Your task to perform on an android device: turn on location history Image 0: 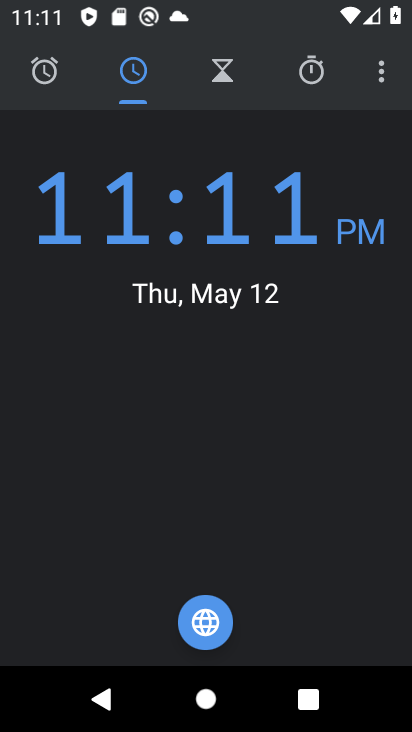
Step 0: press home button
Your task to perform on an android device: turn on location history Image 1: 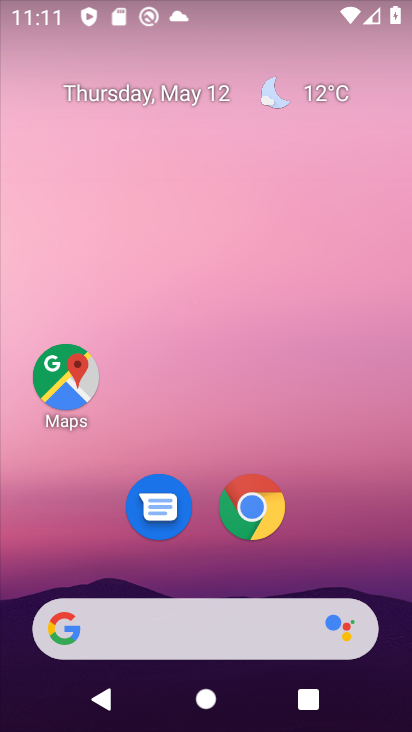
Step 1: drag from (201, 571) to (321, 1)
Your task to perform on an android device: turn on location history Image 2: 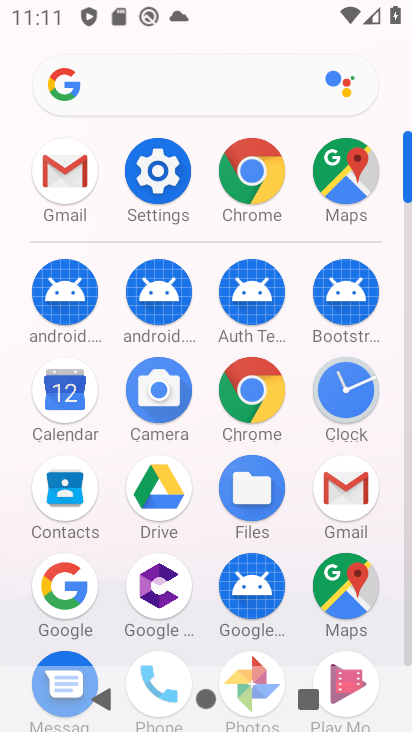
Step 2: click (157, 182)
Your task to perform on an android device: turn on location history Image 3: 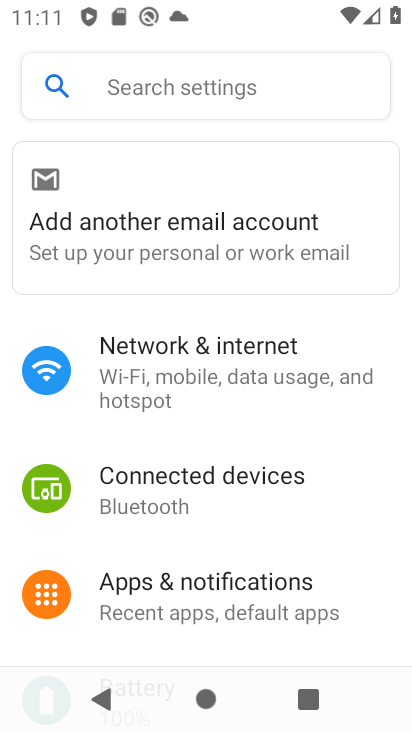
Step 3: drag from (223, 570) to (277, 229)
Your task to perform on an android device: turn on location history Image 4: 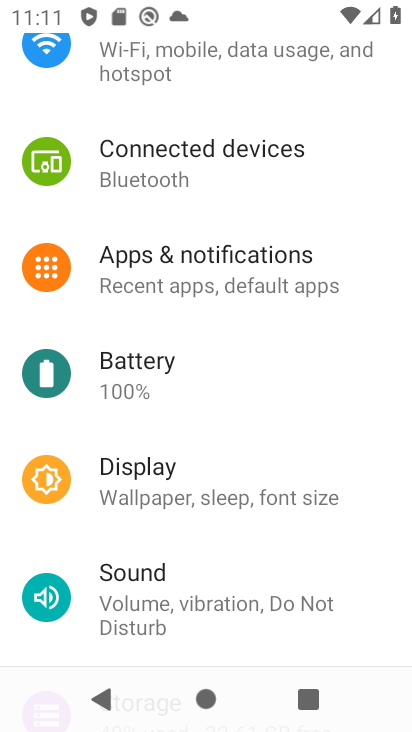
Step 4: drag from (157, 556) to (197, 306)
Your task to perform on an android device: turn on location history Image 5: 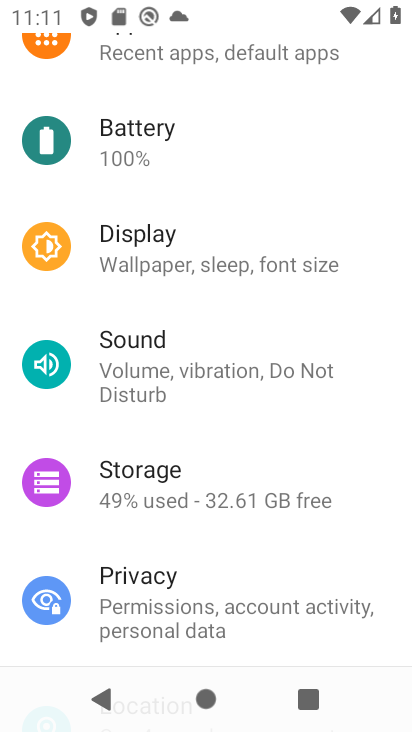
Step 5: drag from (175, 513) to (244, 194)
Your task to perform on an android device: turn on location history Image 6: 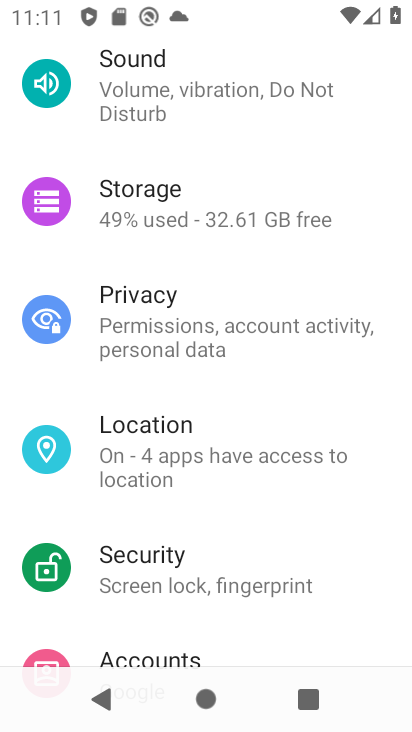
Step 6: click (168, 474)
Your task to perform on an android device: turn on location history Image 7: 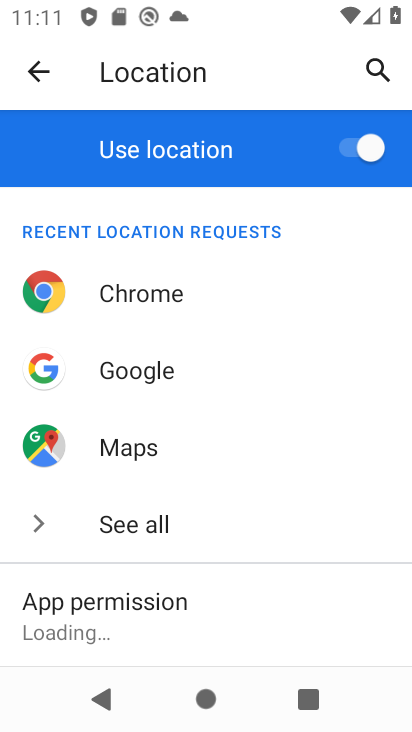
Step 7: drag from (148, 536) to (218, 242)
Your task to perform on an android device: turn on location history Image 8: 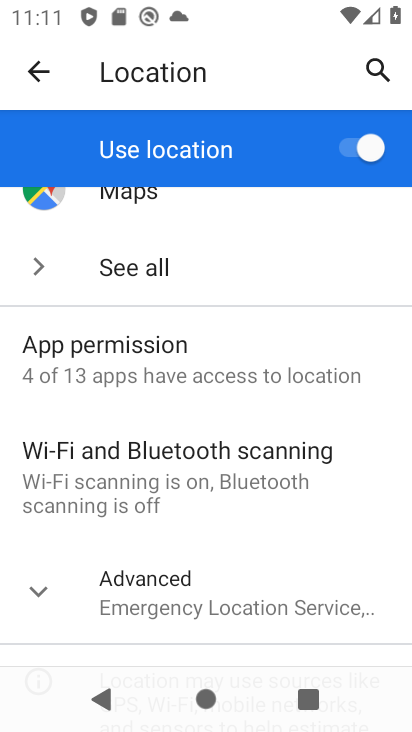
Step 8: drag from (143, 566) to (184, 406)
Your task to perform on an android device: turn on location history Image 9: 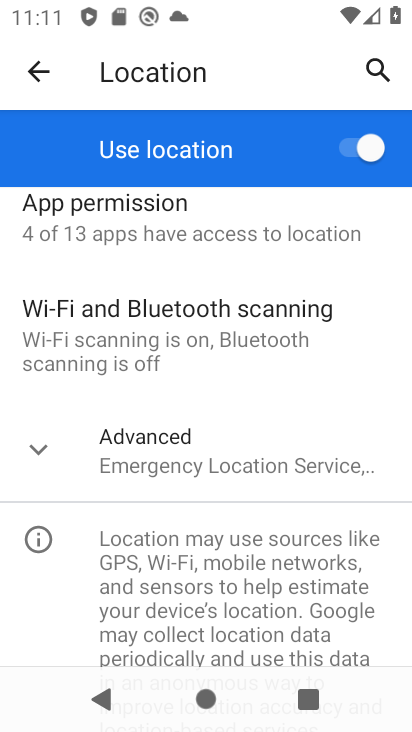
Step 9: click (105, 458)
Your task to perform on an android device: turn on location history Image 10: 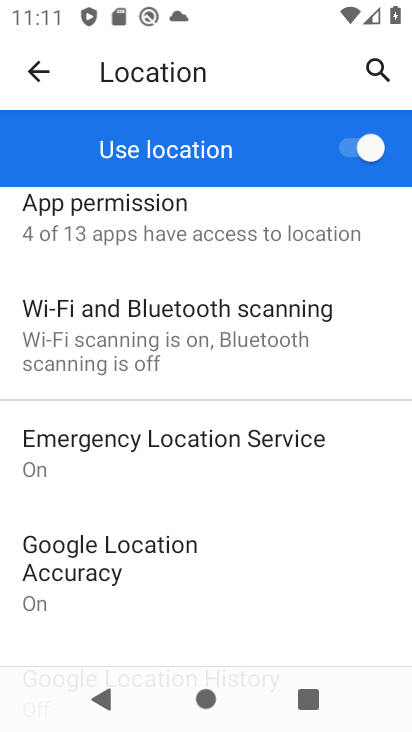
Step 10: drag from (102, 566) to (163, 312)
Your task to perform on an android device: turn on location history Image 11: 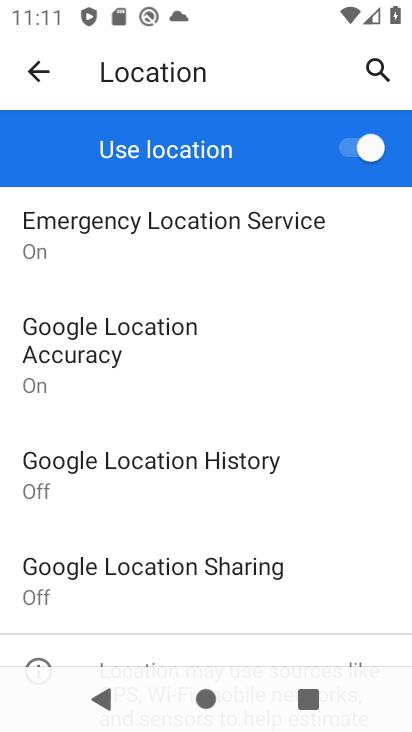
Step 11: click (113, 472)
Your task to perform on an android device: turn on location history Image 12: 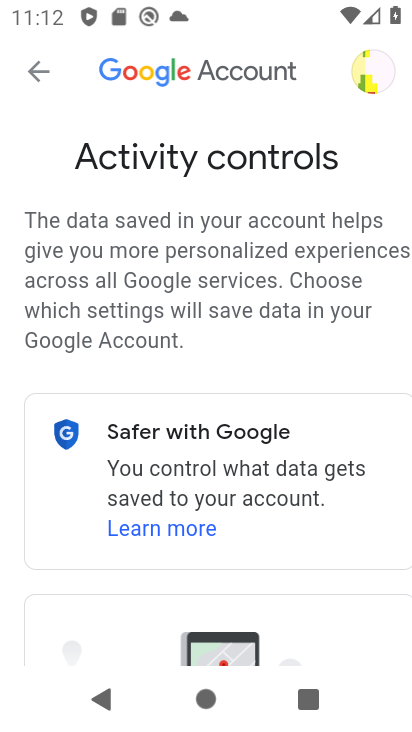
Step 12: task complete